Your task to perform on an android device: uninstall "WhatsApp Messenger" Image 0: 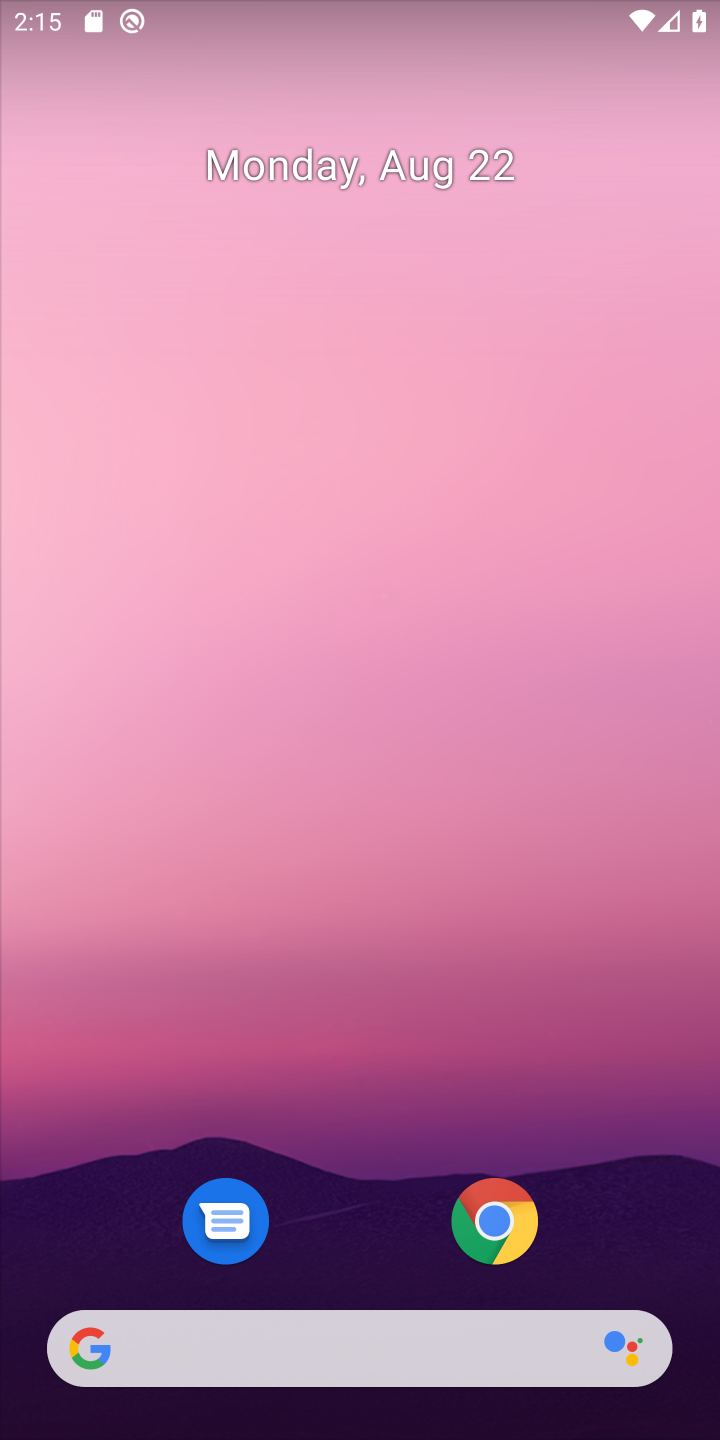
Step 0: press home button
Your task to perform on an android device: uninstall "WhatsApp Messenger" Image 1: 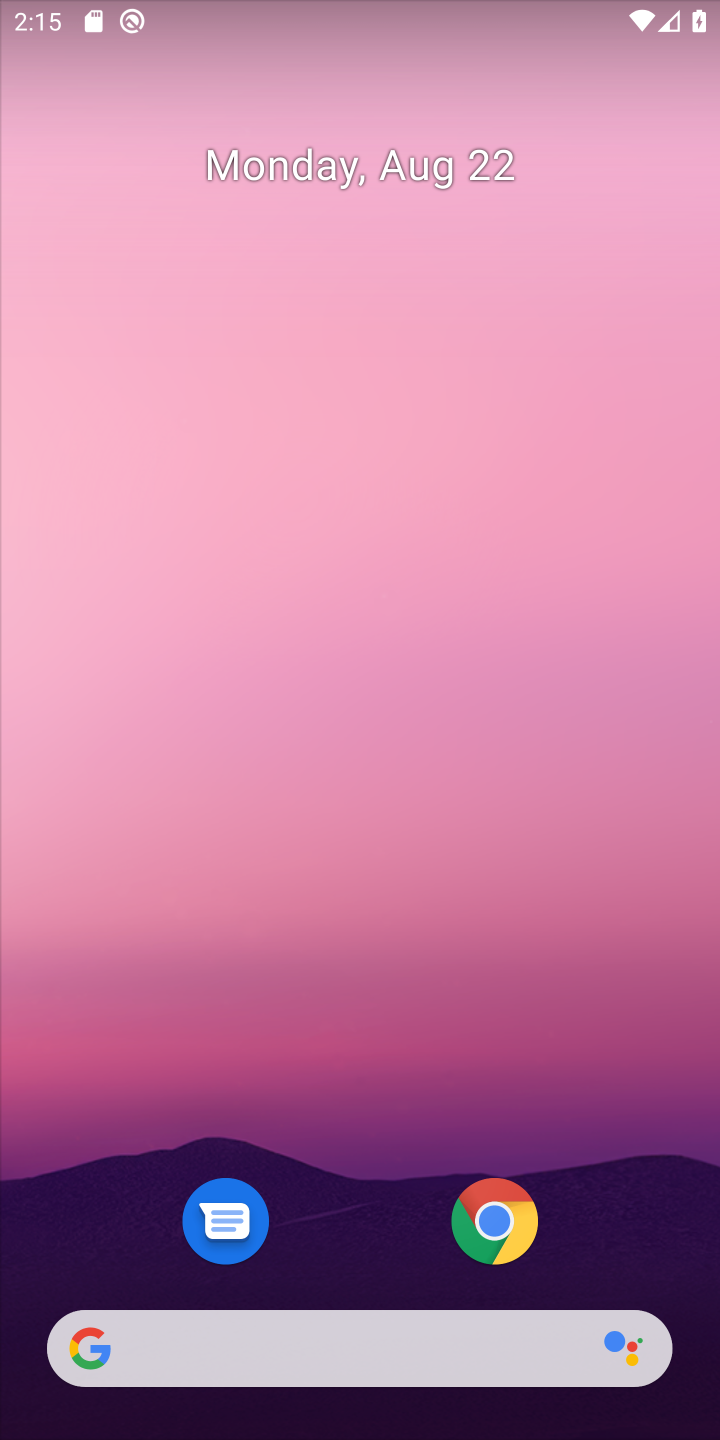
Step 1: drag from (358, 1255) to (476, 229)
Your task to perform on an android device: uninstall "WhatsApp Messenger" Image 2: 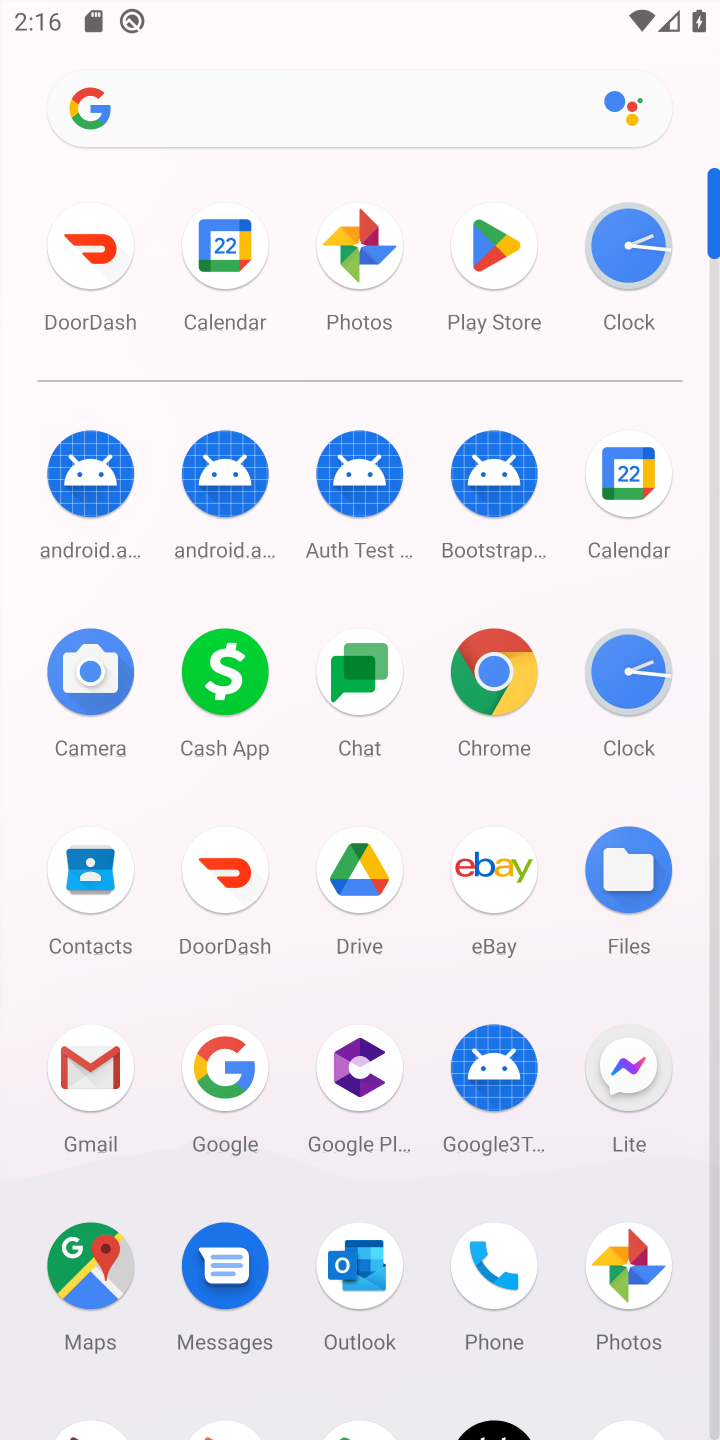
Step 2: click (493, 233)
Your task to perform on an android device: uninstall "WhatsApp Messenger" Image 3: 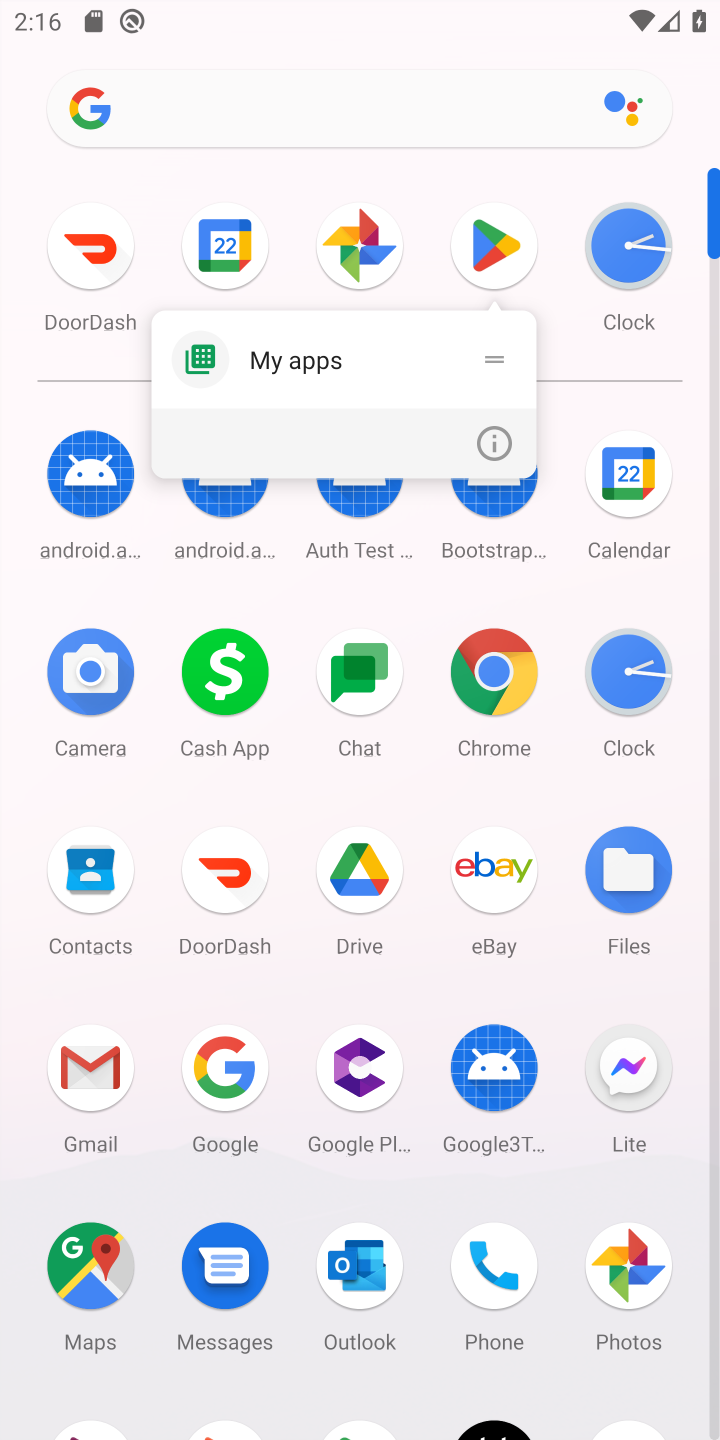
Step 3: click (489, 231)
Your task to perform on an android device: uninstall "WhatsApp Messenger" Image 4: 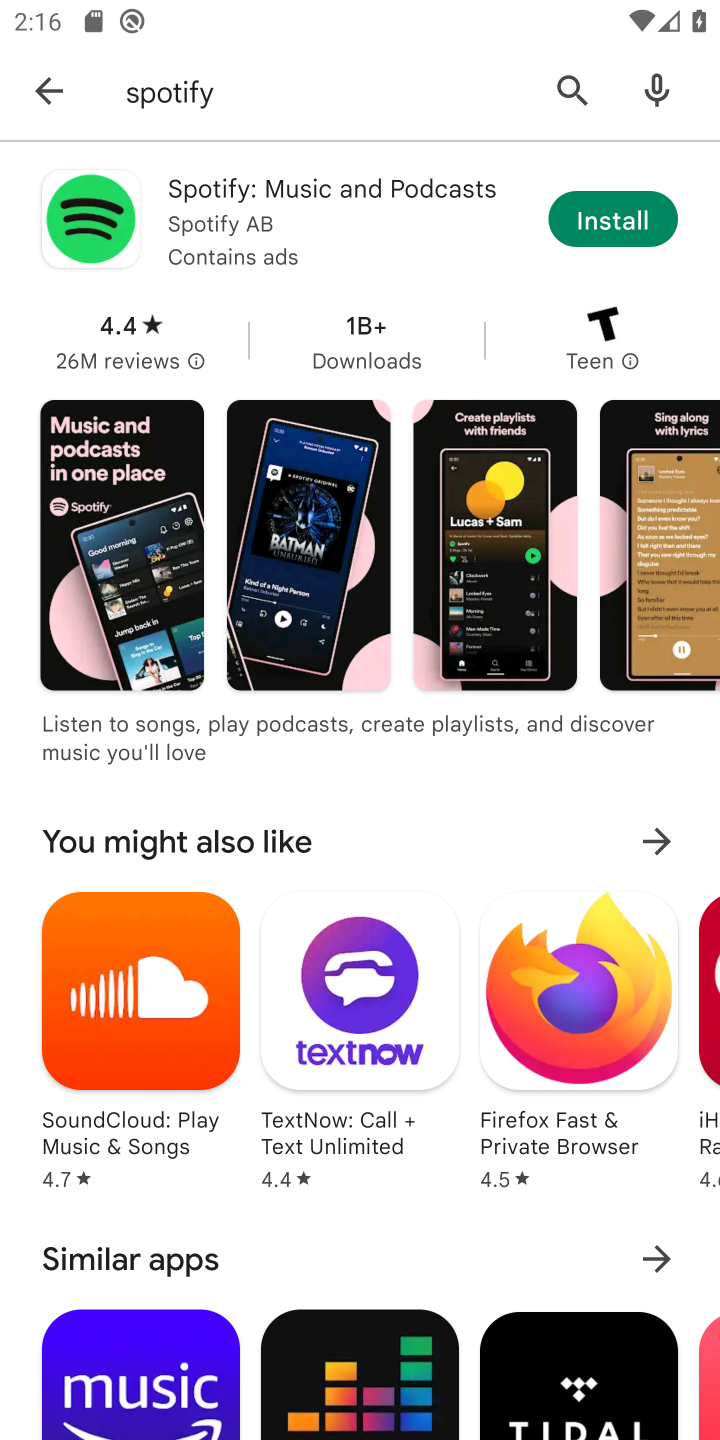
Step 4: click (562, 98)
Your task to perform on an android device: uninstall "WhatsApp Messenger" Image 5: 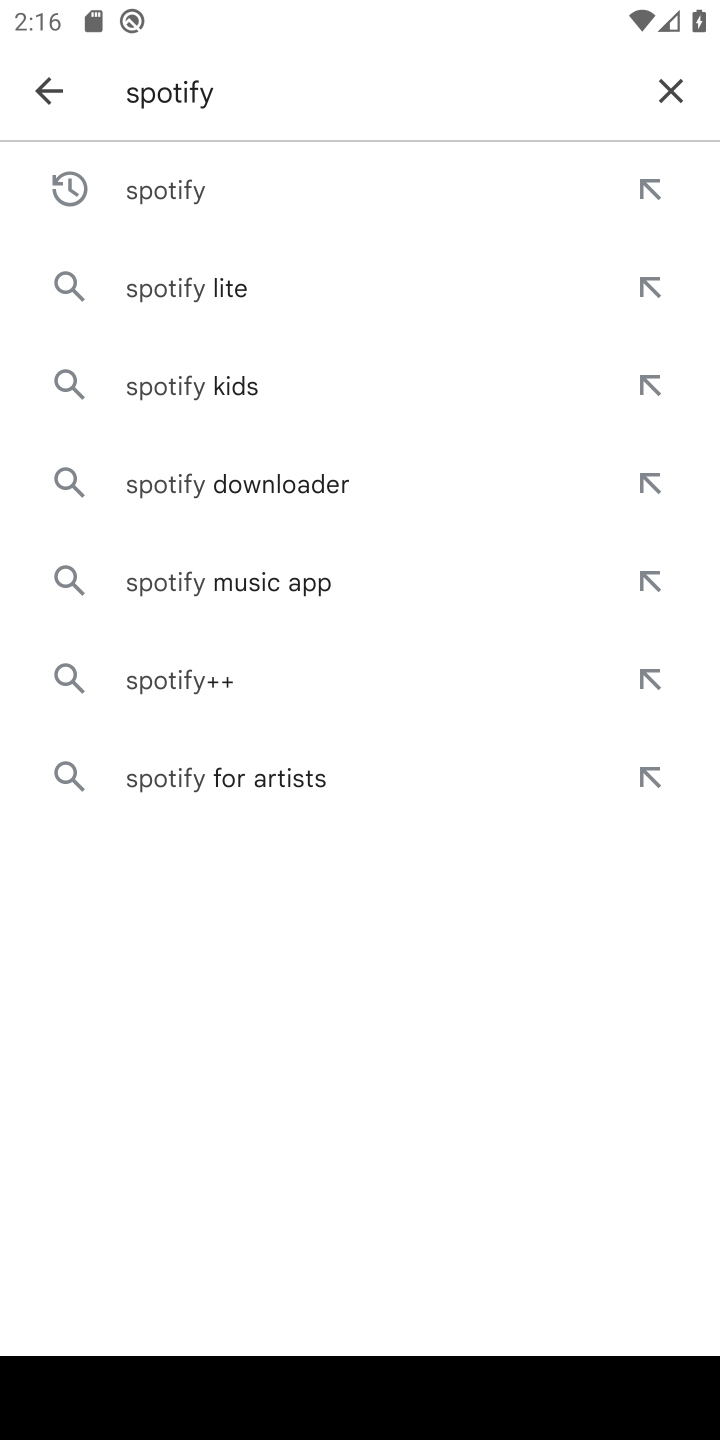
Step 5: click (660, 96)
Your task to perform on an android device: uninstall "WhatsApp Messenger" Image 6: 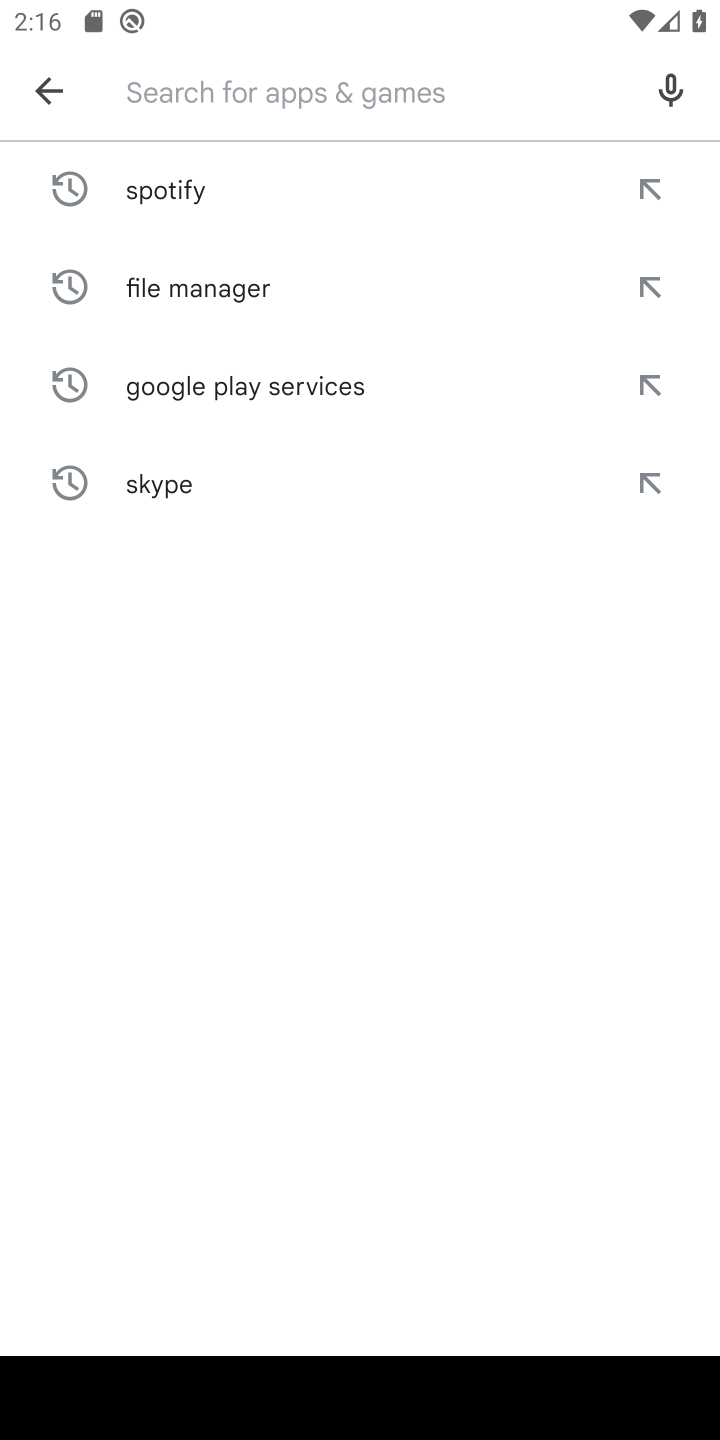
Step 6: type "WhatsApp Messenger"
Your task to perform on an android device: uninstall "WhatsApp Messenger" Image 7: 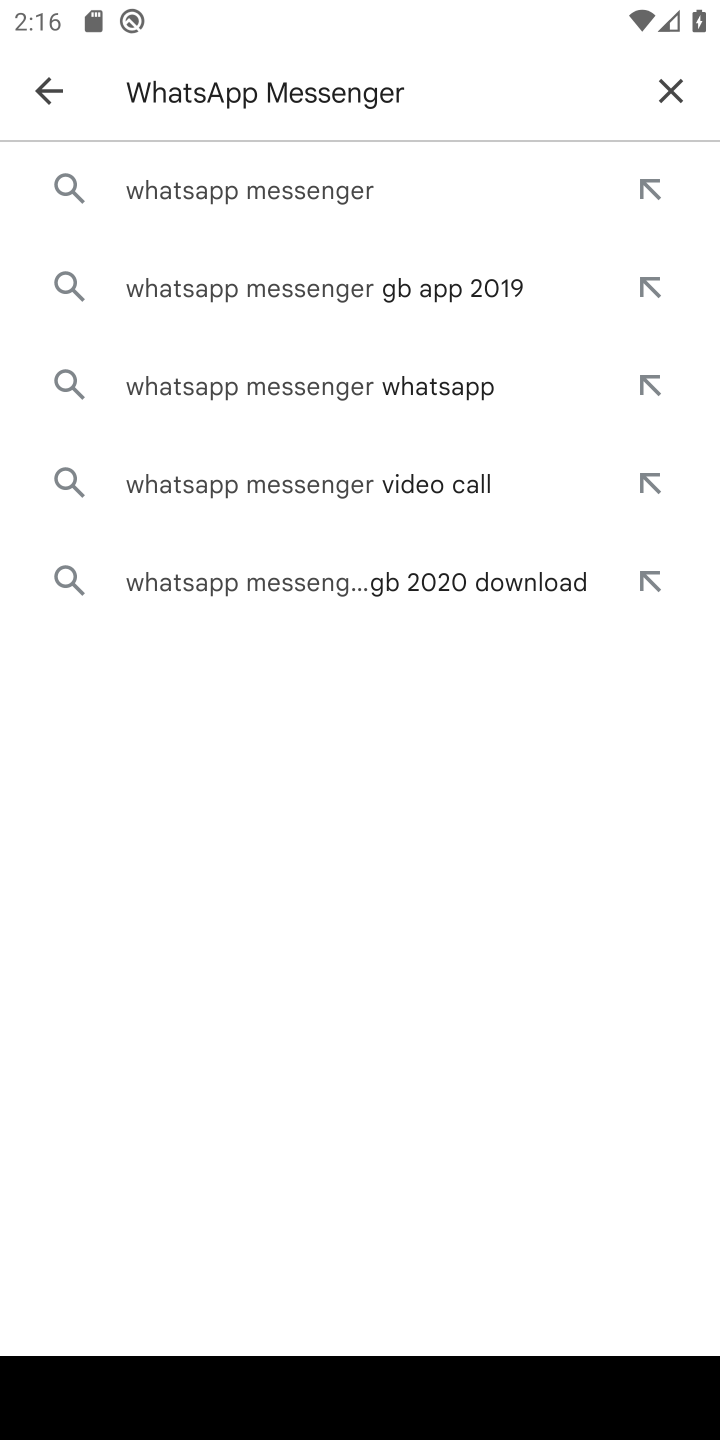
Step 7: click (401, 196)
Your task to perform on an android device: uninstall "WhatsApp Messenger" Image 8: 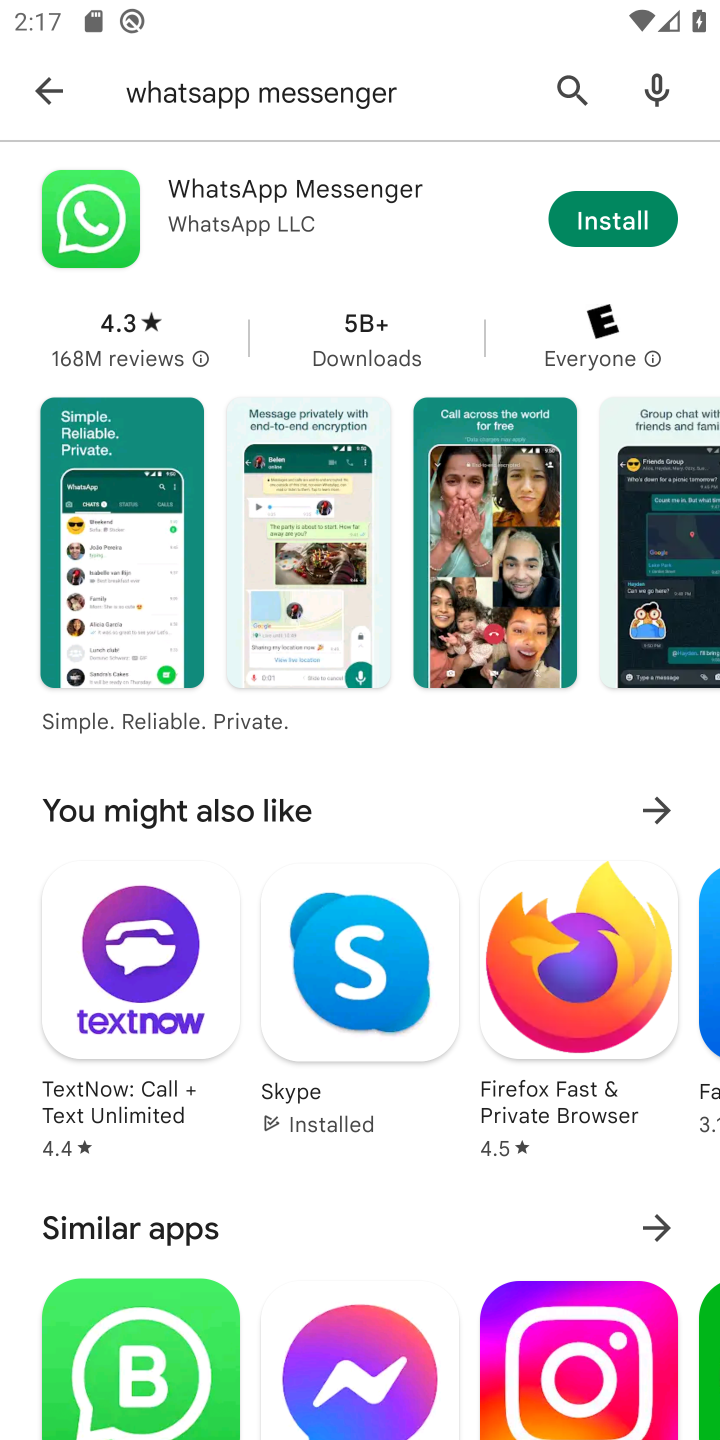
Step 8: task complete